Your task to perform on an android device: toggle data saver in the chrome app Image 0: 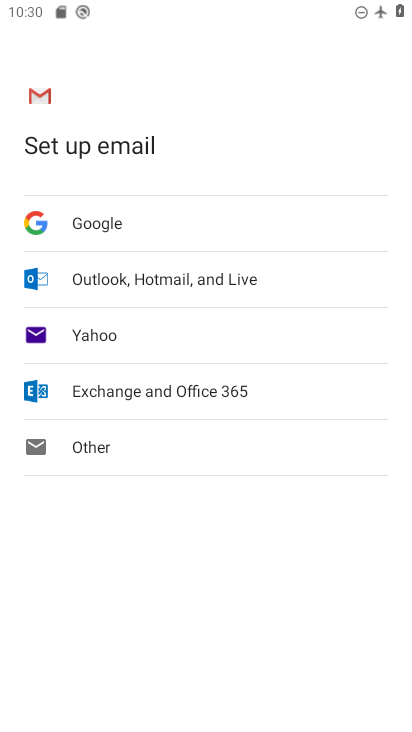
Step 0: click (129, 664)
Your task to perform on an android device: toggle data saver in the chrome app Image 1: 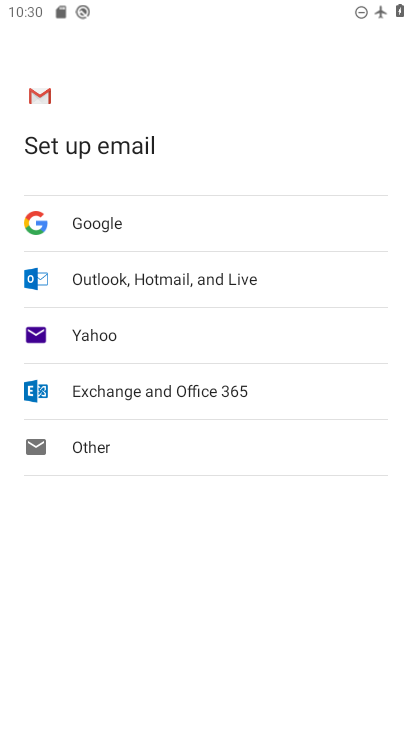
Step 1: press home button
Your task to perform on an android device: toggle data saver in the chrome app Image 2: 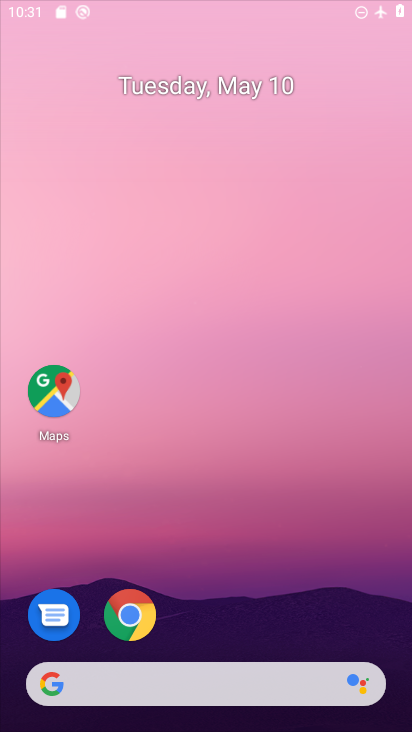
Step 2: drag from (165, 607) to (294, 106)
Your task to perform on an android device: toggle data saver in the chrome app Image 3: 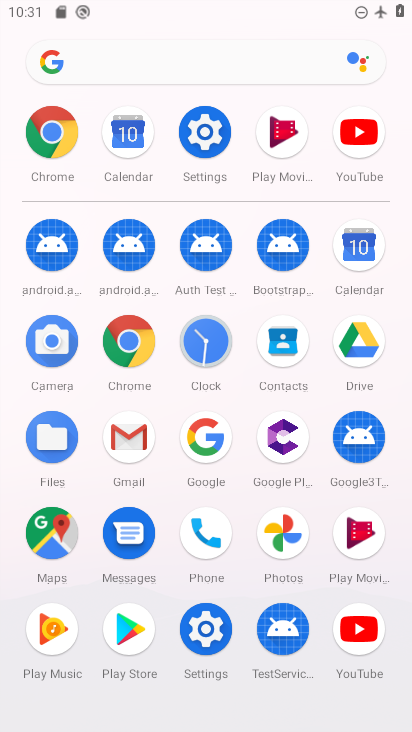
Step 3: click (134, 336)
Your task to perform on an android device: toggle data saver in the chrome app Image 4: 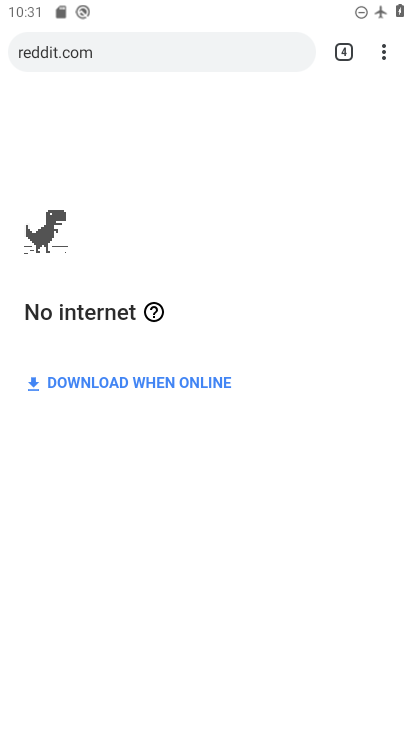
Step 4: click (297, 277)
Your task to perform on an android device: toggle data saver in the chrome app Image 5: 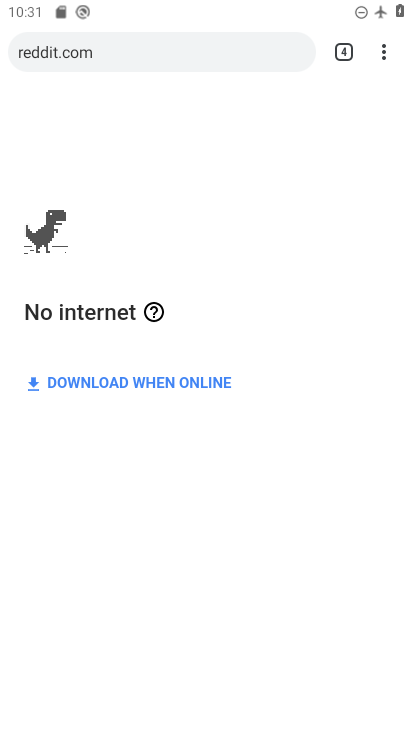
Step 5: drag from (387, 48) to (231, 583)
Your task to perform on an android device: toggle data saver in the chrome app Image 6: 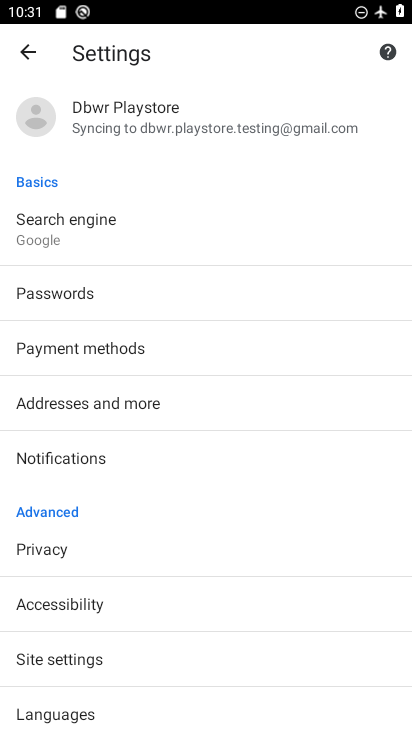
Step 6: drag from (154, 665) to (217, 291)
Your task to perform on an android device: toggle data saver in the chrome app Image 7: 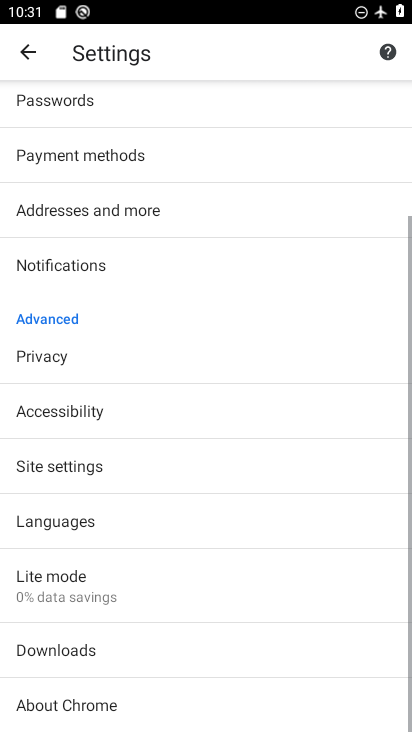
Step 7: click (75, 580)
Your task to perform on an android device: toggle data saver in the chrome app Image 8: 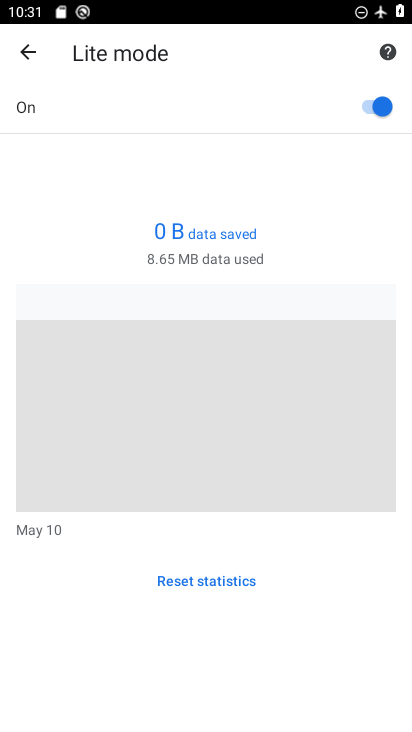
Step 8: task complete